Your task to perform on an android device: Open settings Image 0: 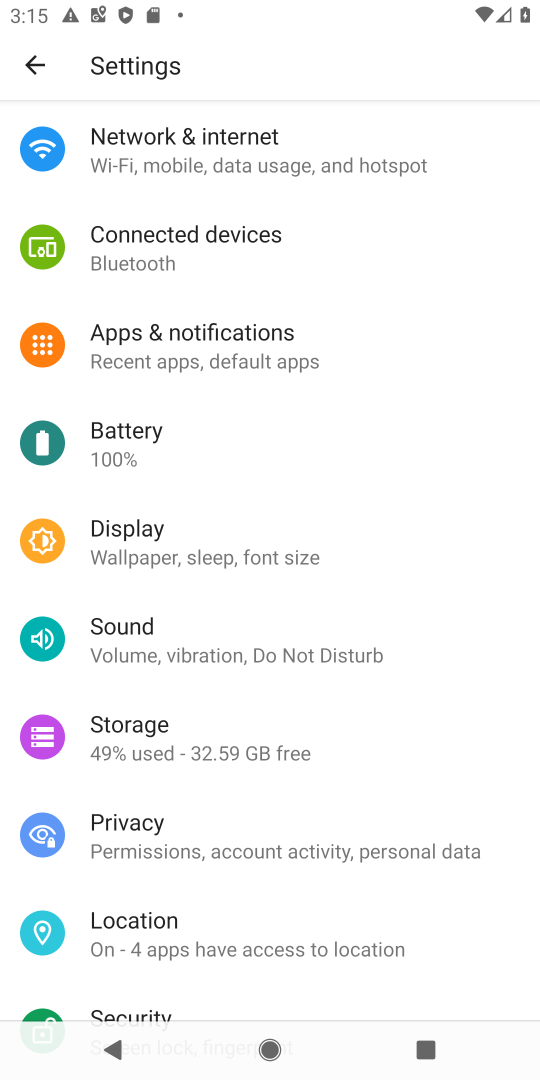
Step 0: task complete